Your task to perform on an android device: Open Youtube and go to the subscriptions tab Image 0: 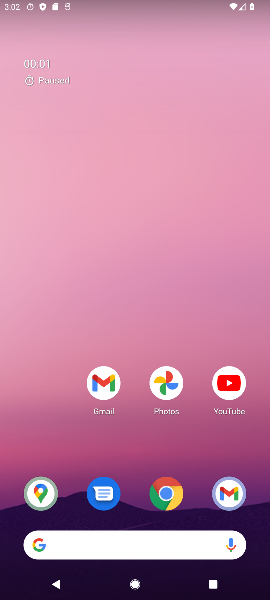
Step 0: click (236, 378)
Your task to perform on an android device: Open Youtube and go to the subscriptions tab Image 1: 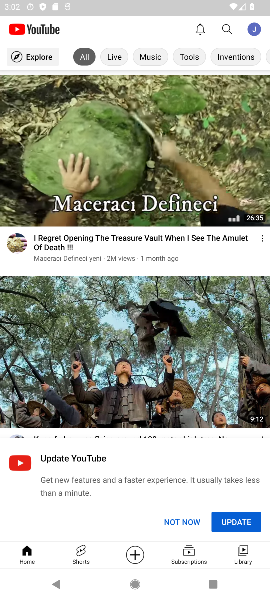
Step 1: click (241, 550)
Your task to perform on an android device: Open Youtube and go to the subscriptions tab Image 2: 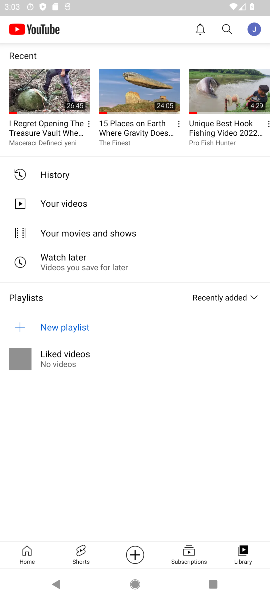
Step 2: click (185, 554)
Your task to perform on an android device: Open Youtube and go to the subscriptions tab Image 3: 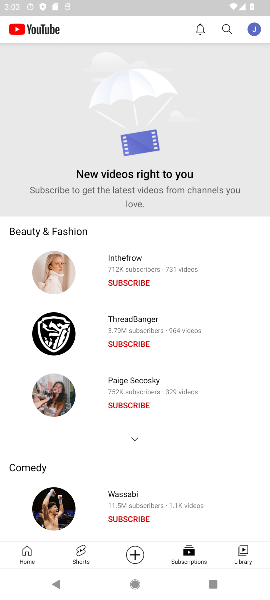
Step 3: task complete